Your task to perform on an android device: Open Google Image 0: 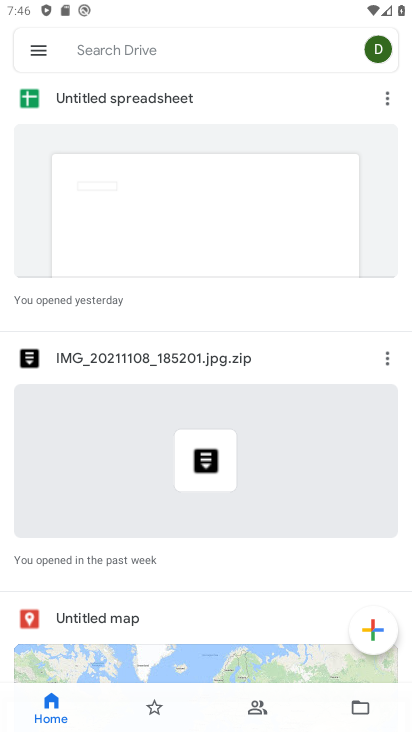
Step 0: press home button
Your task to perform on an android device: Open Google Image 1: 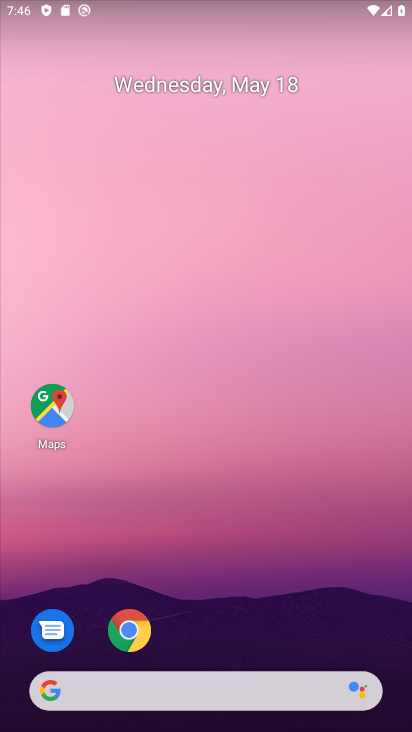
Step 1: click (47, 687)
Your task to perform on an android device: Open Google Image 2: 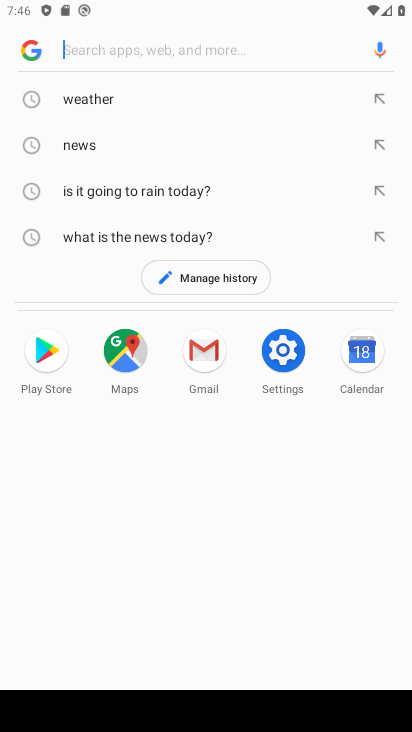
Step 2: click (40, 53)
Your task to perform on an android device: Open Google Image 3: 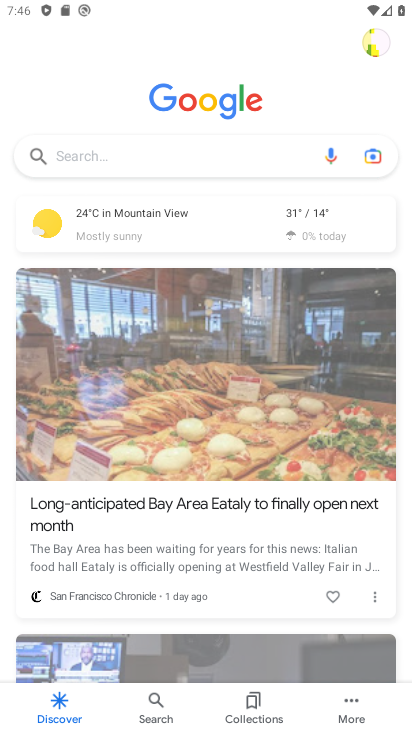
Step 3: task complete